Your task to perform on an android device: toggle airplane mode Image 0: 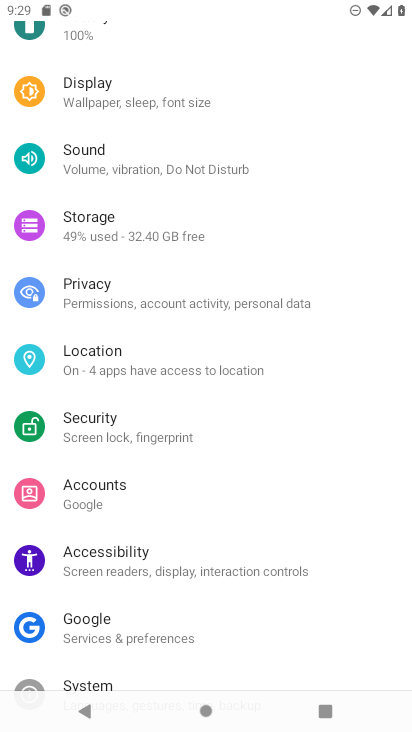
Step 0: press home button
Your task to perform on an android device: toggle airplane mode Image 1: 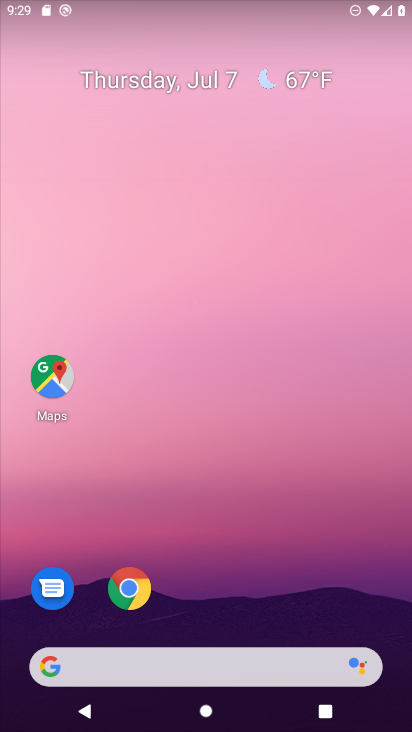
Step 1: drag from (238, 605) to (233, 25)
Your task to perform on an android device: toggle airplane mode Image 2: 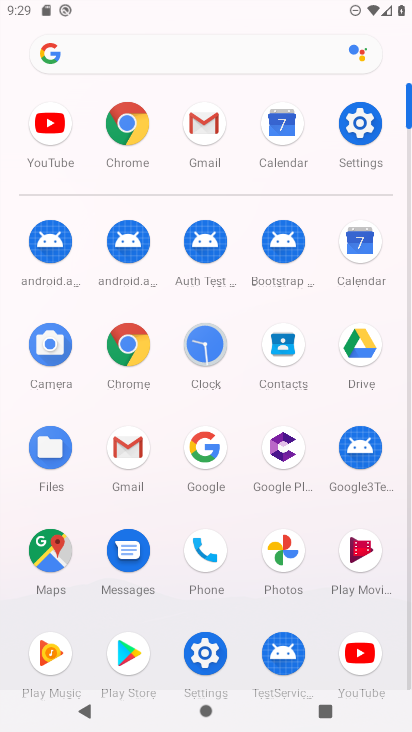
Step 2: click (360, 123)
Your task to perform on an android device: toggle airplane mode Image 3: 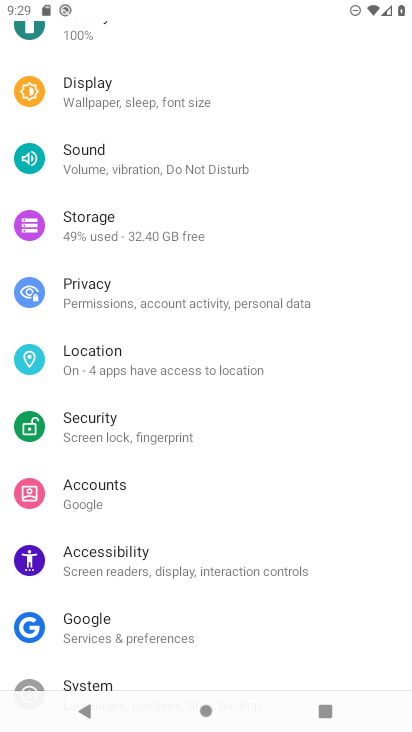
Step 3: drag from (251, 134) to (223, 339)
Your task to perform on an android device: toggle airplane mode Image 4: 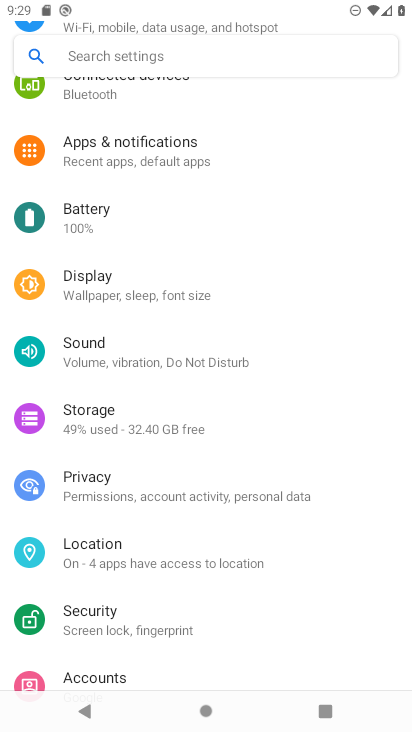
Step 4: drag from (214, 210) to (233, 461)
Your task to perform on an android device: toggle airplane mode Image 5: 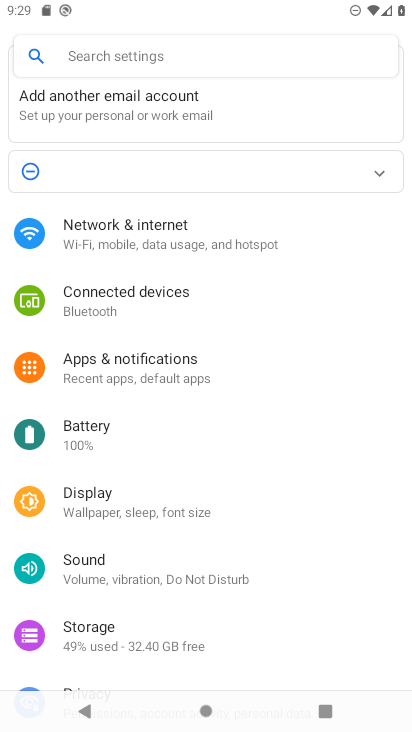
Step 5: click (156, 246)
Your task to perform on an android device: toggle airplane mode Image 6: 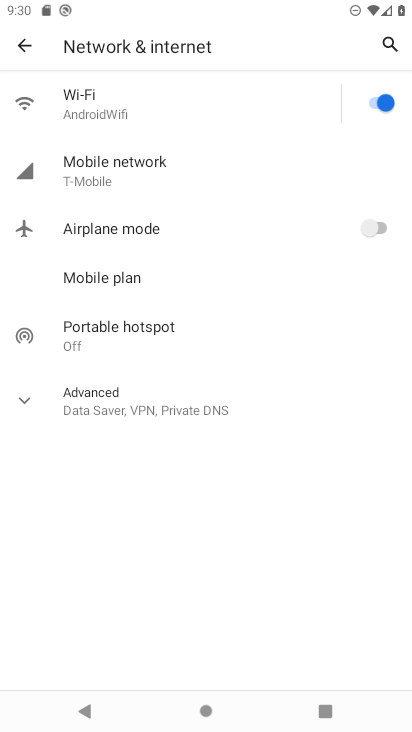
Step 6: click (375, 227)
Your task to perform on an android device: toggle airplane mode Image 7: 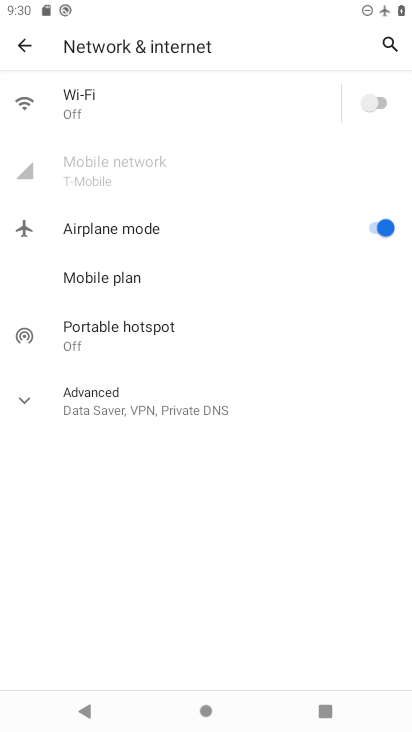
Step 7: task complete